Your task to perform on an android device: Search for vegetarian restaurants on Maps Image 0: 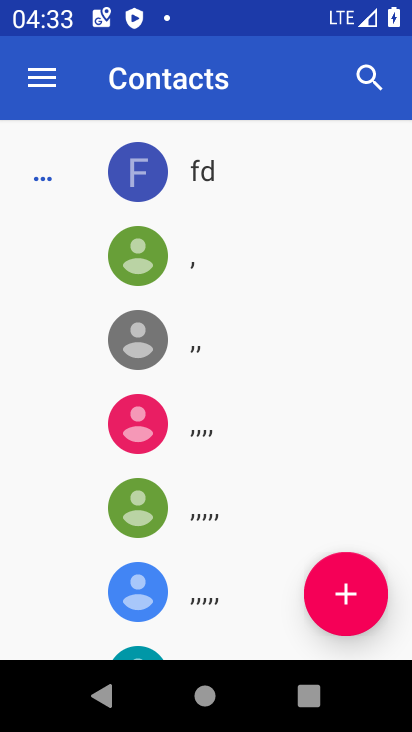
Step 0: press home button
Your task to perform on an android device: Search for vegetarian restaurants on Maps Image 1: 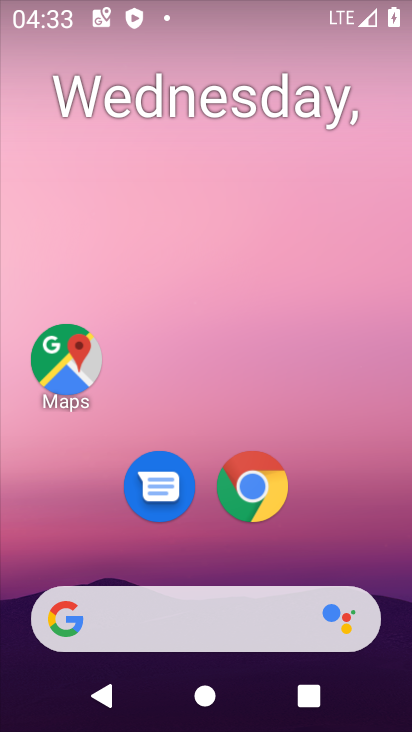
Step 1: click (48, 364)
Your task to perform on an android device: Search for vegetarian restaurants on Maps Image 2: 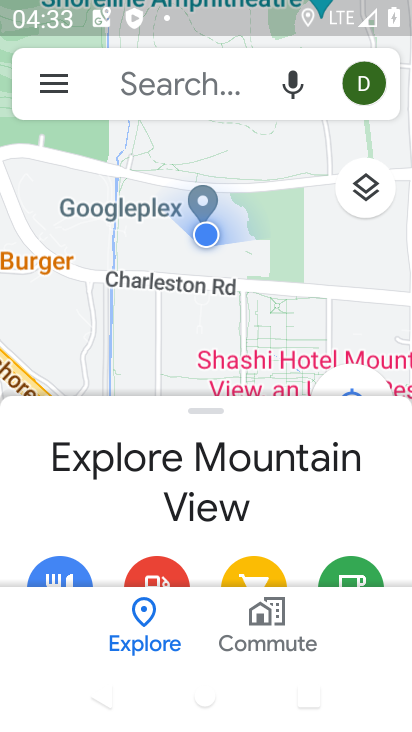
Step 2: click (192, 91)
Your task to perform on an android device: Search for vegetarian restaurants on Maps Image 3: 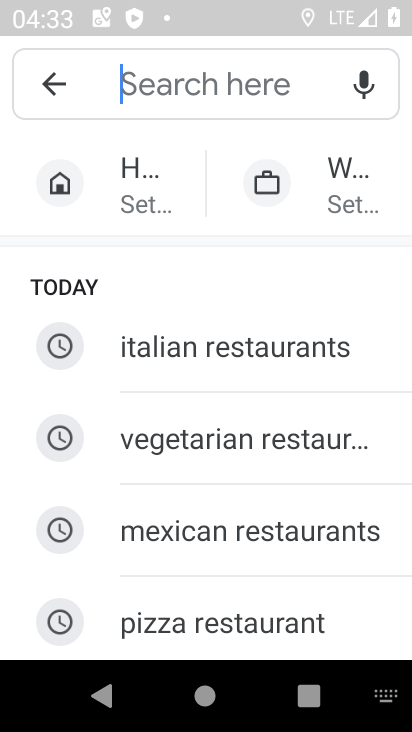
Step 3: click (186, 431)
Your task to perform on an android device: Search for vegetarian restaurants on Maps Image 4: 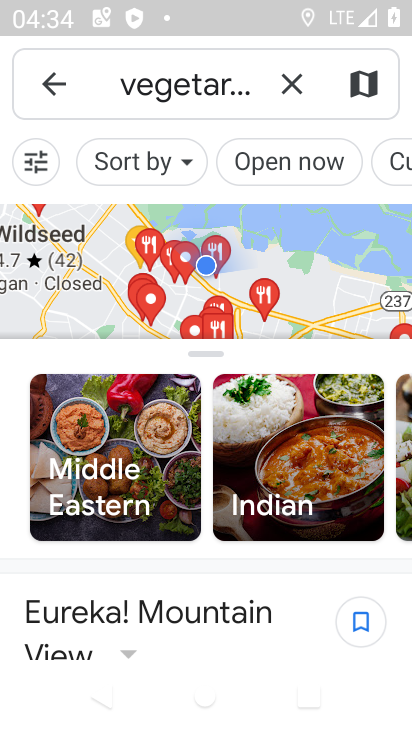
Step 4: task complete